Your task to perform on an android device: Go to internet settings Image 0: 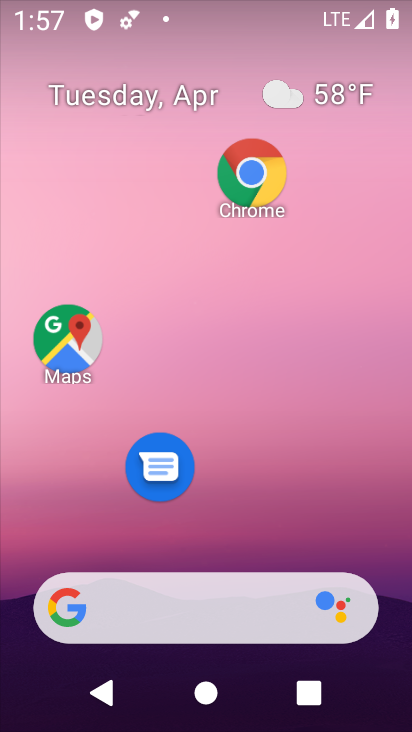
Step 0: drag from (313, 633) to (294, 98)
Your task to perform on an android device: Go to internet settings Image 1: 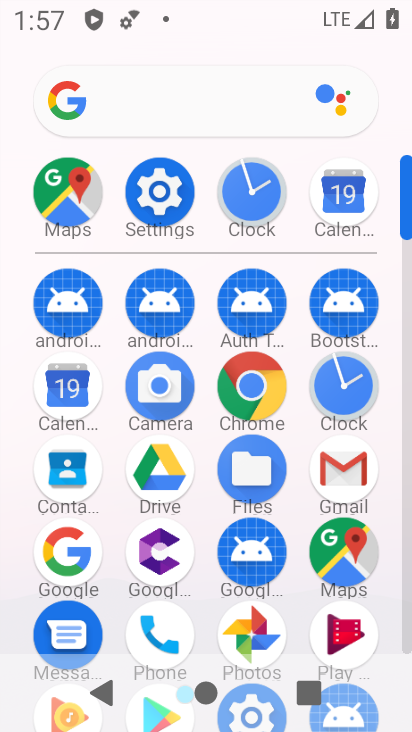
Step 1: click (150, 196)
Your task to perform on an android device: Go to internet settings Image 2: 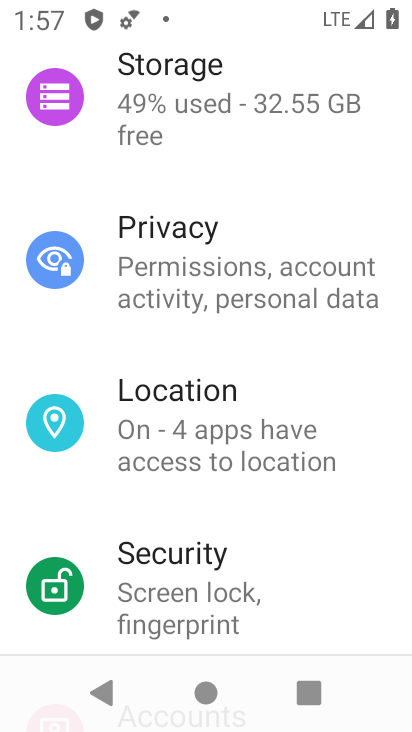
Step 2: drag from (175, 166) to (263, 580)
Your task to perform on an android device: Go to internet settings Image 3: 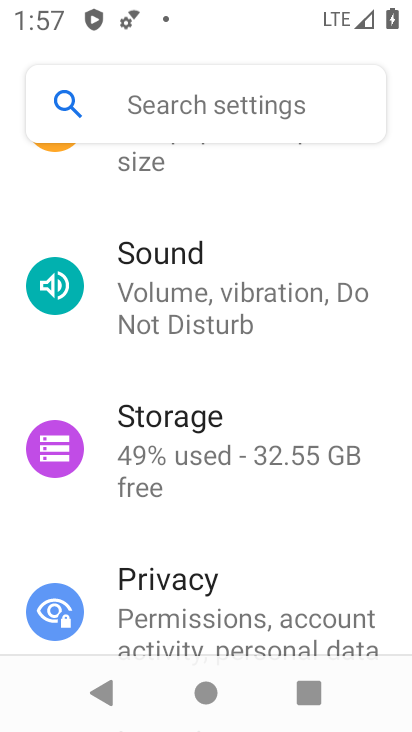
Step 3: drag from (177, 227) to (247, 650)
Your task to perform on an android device: Go to internet settings Image 4: 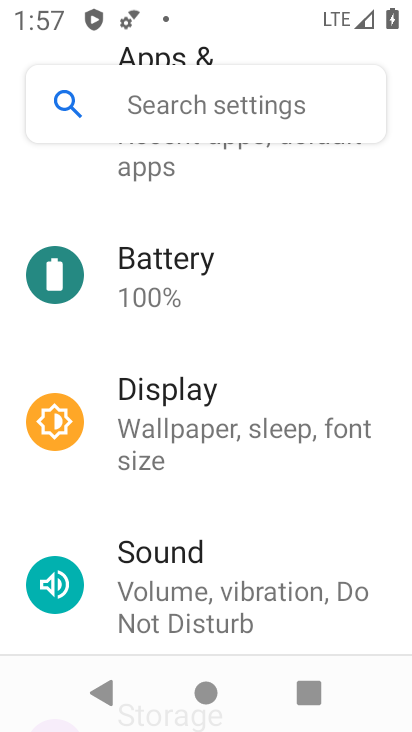
Step 4: drag from (169, 268) to (212, 640)
Your task to perform on an android device: Go to internet settings Image 5: 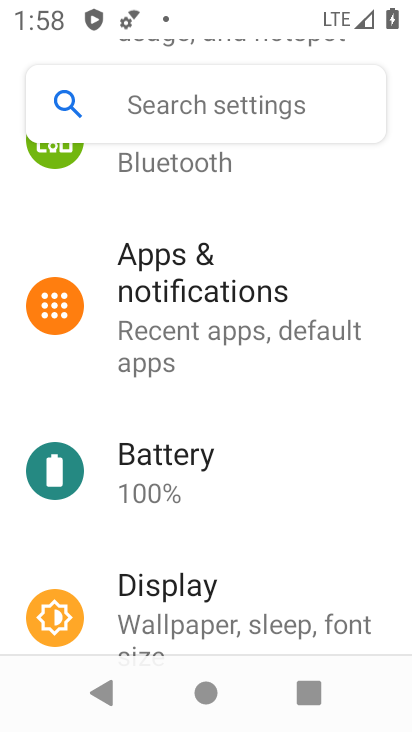
Step 5: drag from (128, 261) to (206, 632)
Your task to perform on an android device: Go to internet settings Image 6: 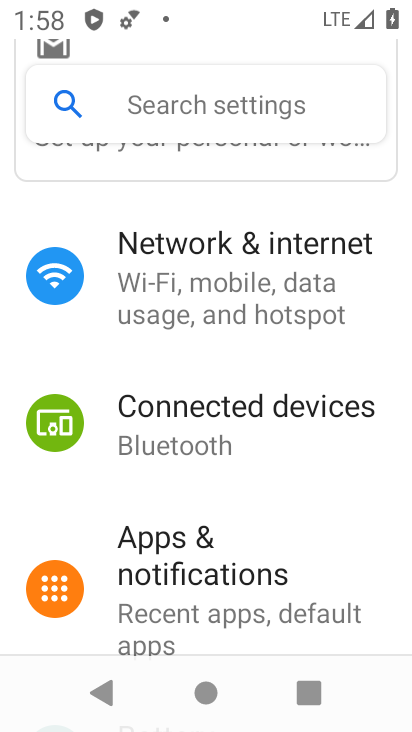
Step 6: click (122, 283)
Your task to perform on an android device: Go to internet settings Image 7: 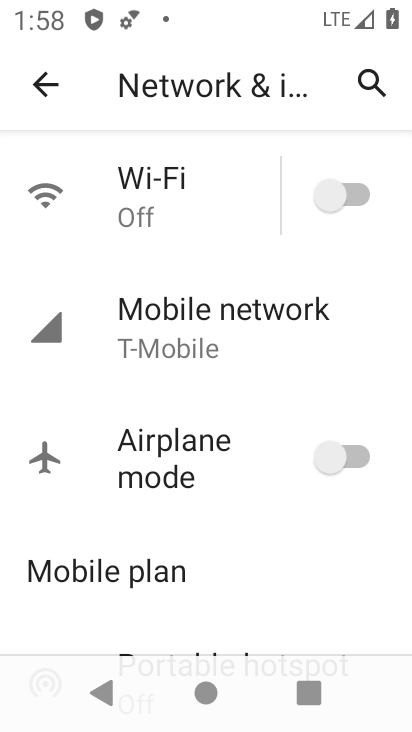
Step 7: click (172, 340)
Your task to perform on an android device: Go to internet settings Image 8: 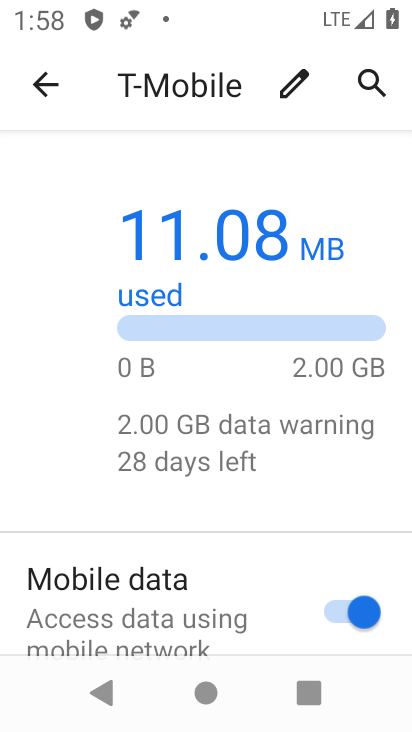
Step 8: task complete